Your task to perform on an android device: change the clock style Image 0: 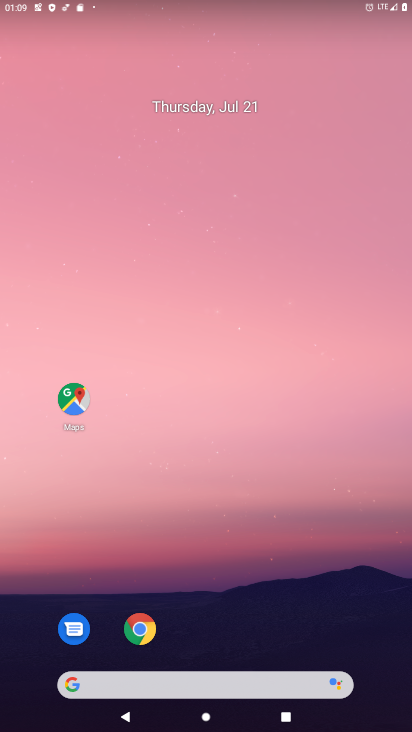
Step 0: drag from (373, 600) to (257, 64)
Your task to perform on an android device: change the clock style Image 1: 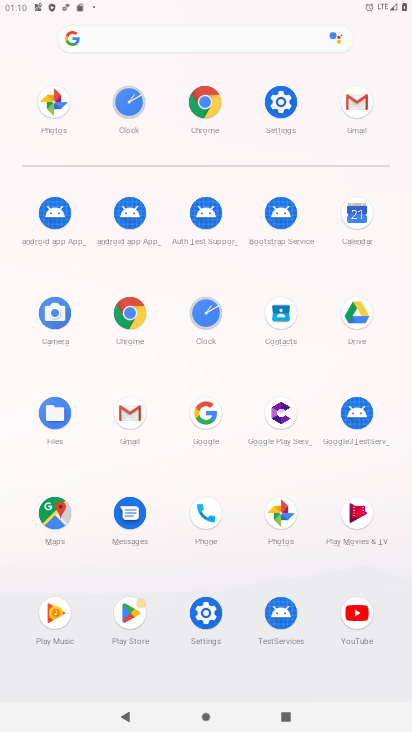
Step 1: click (213, 310)
Your task to perform on an android device: change the clock style Image 2: 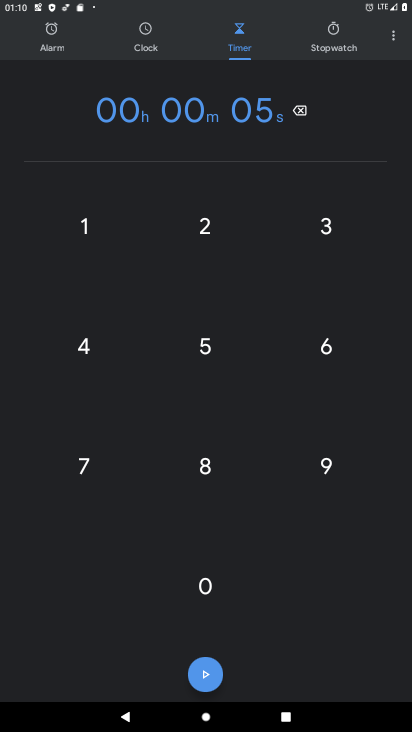
Step 2: click (393, 36)
Your task to perform on an android device: change the clock style Image 3: 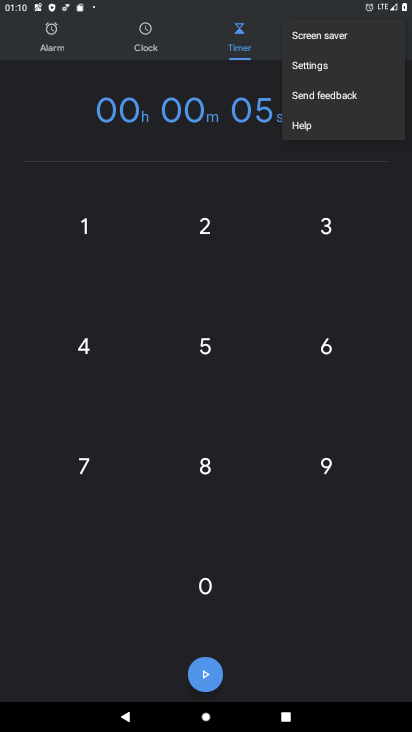
Step 3: click (324, 66)
Your task to perform on an android device: change the clock style Image 4: 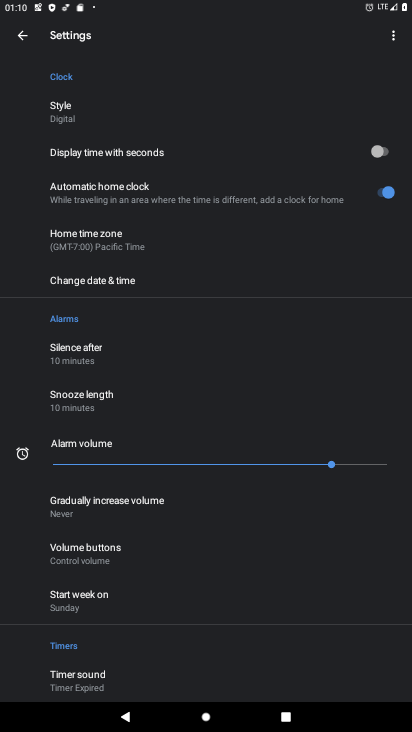
Step 4: click (76, 117)
Your task to perform on an android device: change the clock style Image 5: 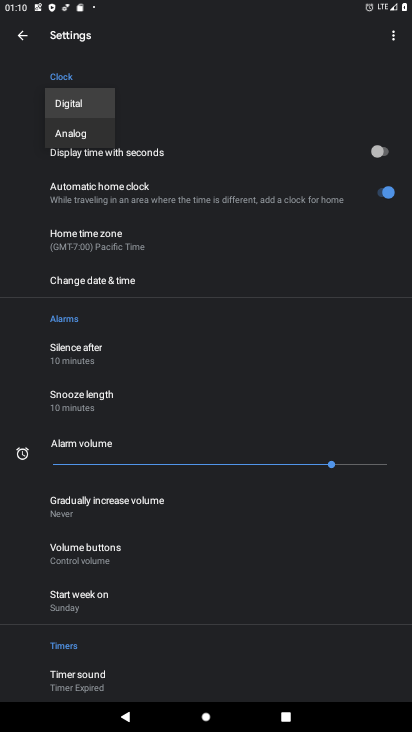
Step 5: click (98, 138)
Your task to perform on an android device: change the clock style Image 6: 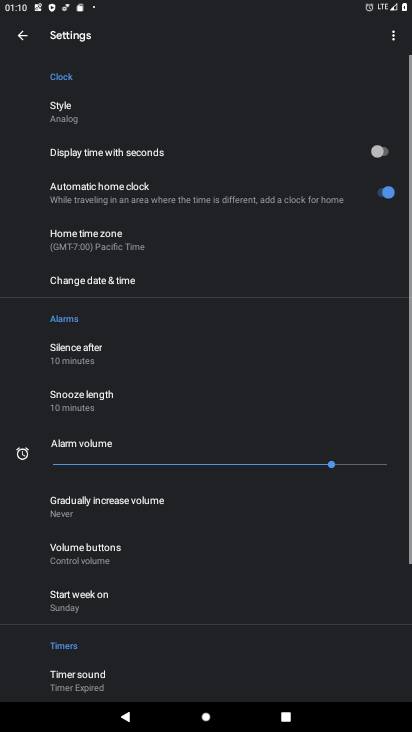
Step 6: task complete